Your task to perform on an android device: Open accessibility settings Image 0: 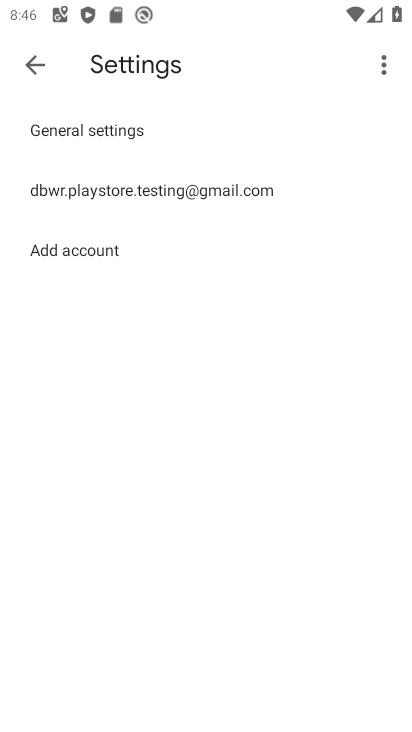
Step 0: press home button
Your task to perform on an android device: Open accessibility settings Image 1: 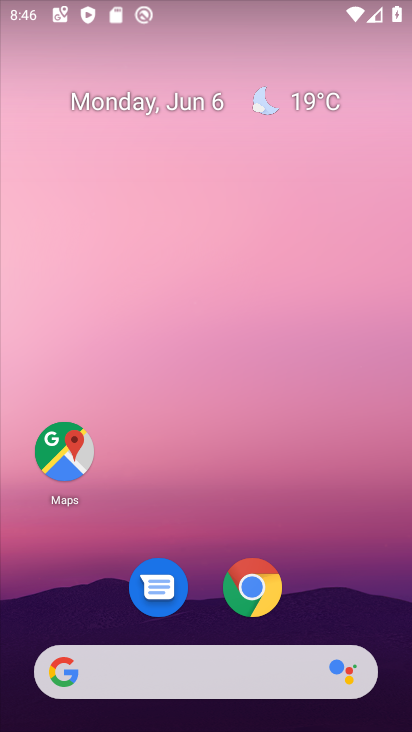
Step 1: drag from (127, 597) to (221, 227)
Your task to perform on an android device: Open accessibility settings Image 2: 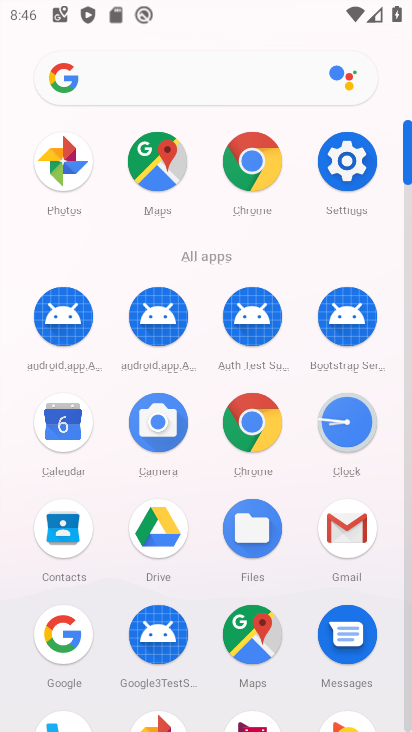
Step 2: drag from (177, 661) to (288, 320)
Your task to perform on an android device: Open accessibility settings Image 3: 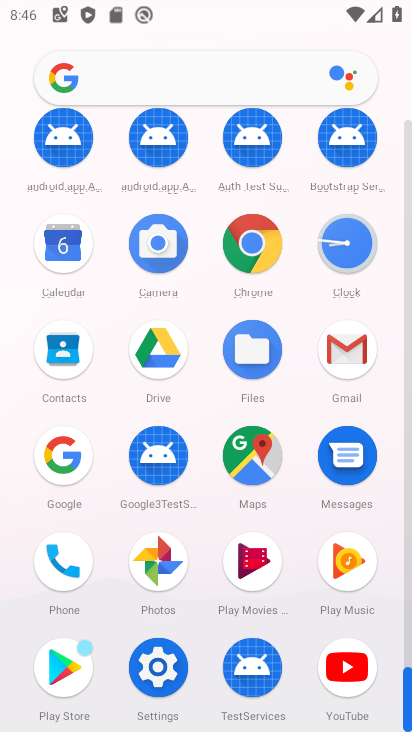
Step 3: click (158, 672)
Your task to perform on an android device: Open accessibility settings Image 4: 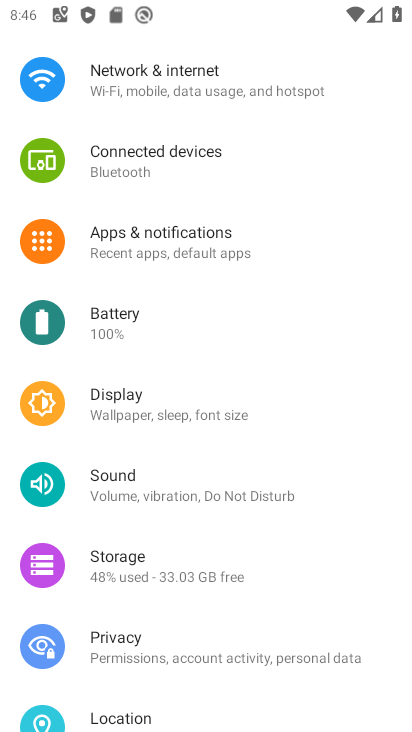
Step 4: drag from (196, 670) to (304, 202)
Your task to perform on an android device: Open accessibility settings Image 5: 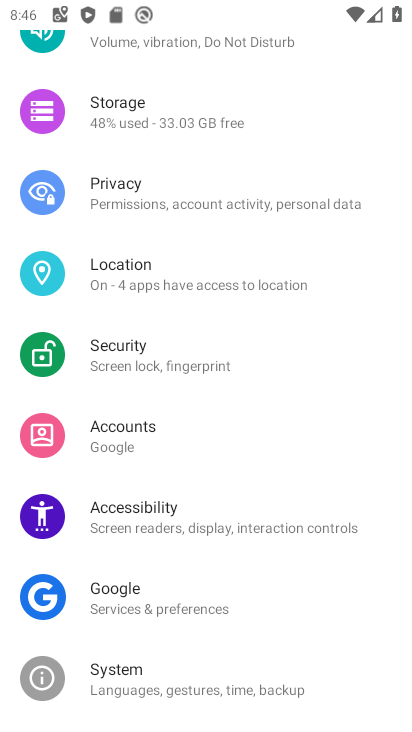
Step 5: click (211, 525)
Your task to perform on an android device: Open accessibility settings Image 6: 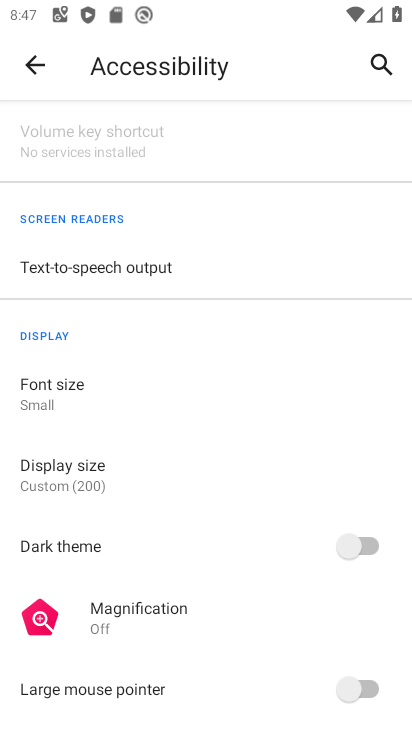
Step 6: task complete